Your task to perform on an android device: turn smart compose on in the gmail app Image 0: 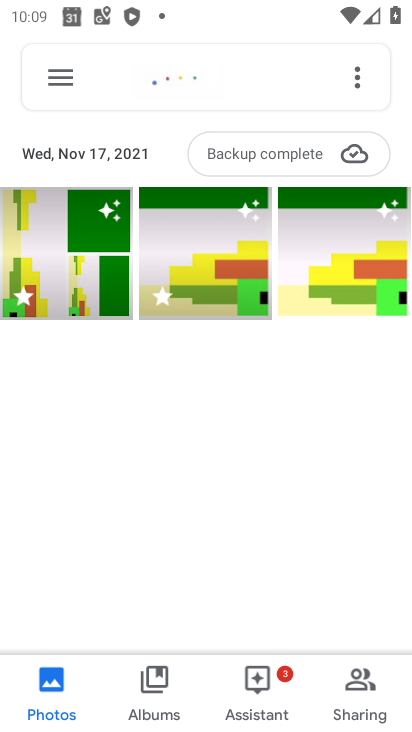
Step 0: press home button
Your task to perform on an android device: turn smart compose on in the gmail app Image 1: 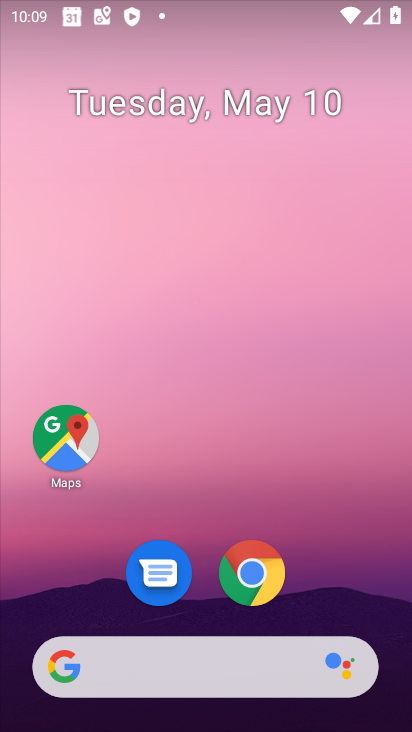
Step 1: drag from (335, 588) to (209, 118)
Your task to perform on an android device: turn smart compose on in the gmail app Image 2: 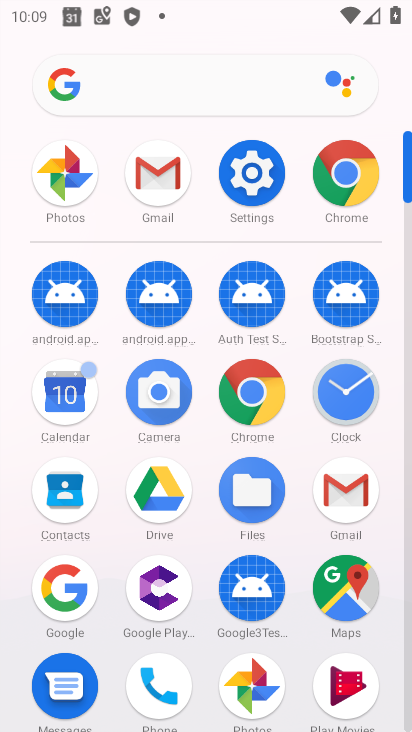
Step 2: click (148, 184)
Your task to perform on an android device: turn smart compose on in the gmail app Image 3: 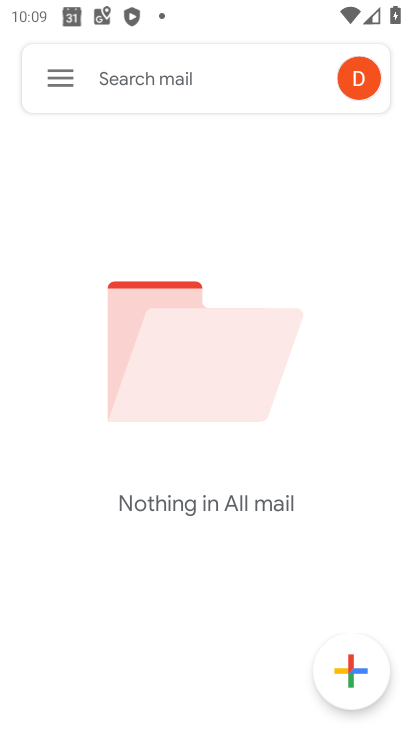
Step 3: click (51, 66)
Your task to perform on an android device: turn smart compose on in the gmail app Image 4: 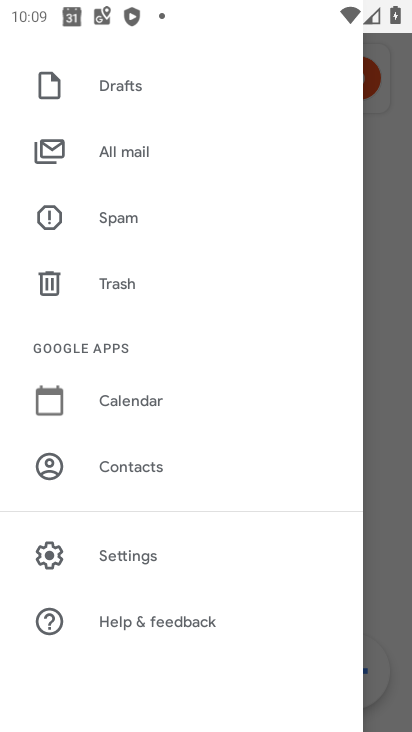
Step 4: click (120, 550)
Your task to perform on an android device: turn smart compose on in the gmail app Image 5: 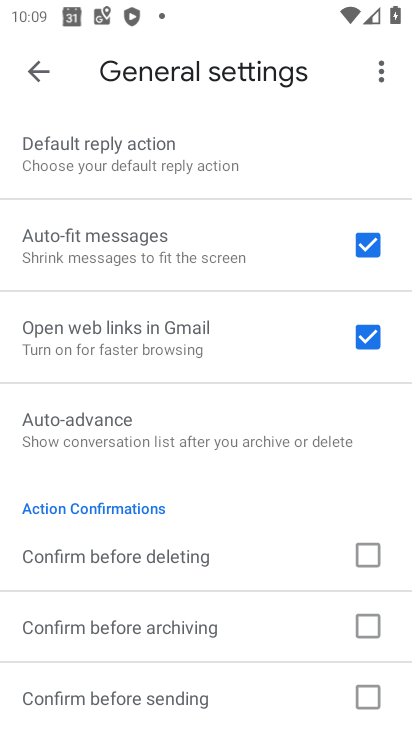
Step 5: click (40, 67)
Your task to perform on an android device: turn smart compose on in the gmail app Image 6: 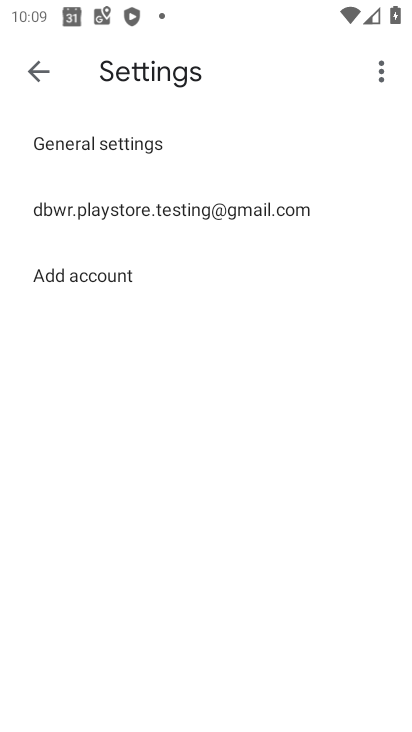
Step 6: click (116, 229)
Your task to perform on an android device: turn smart compose on in the gmail app Image 7: 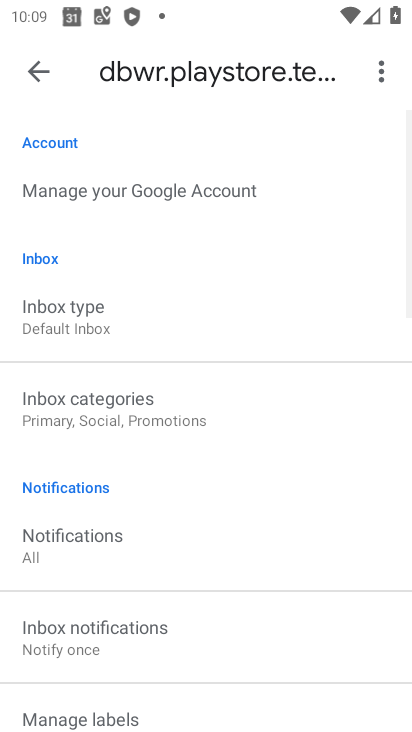
Step 7: task complete